Your task to perform on an android device: search for starred emails in the gmail app Image 0: 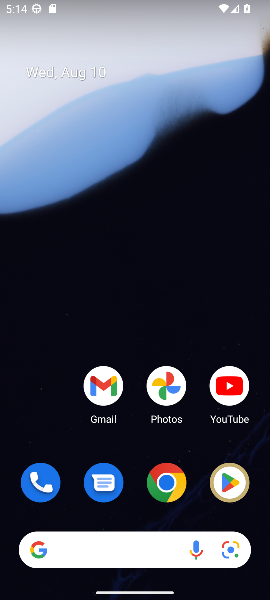
Step 0: click (98, 391)
Your task to perform on an android device: search for starred emails in the gmail app Image 1: 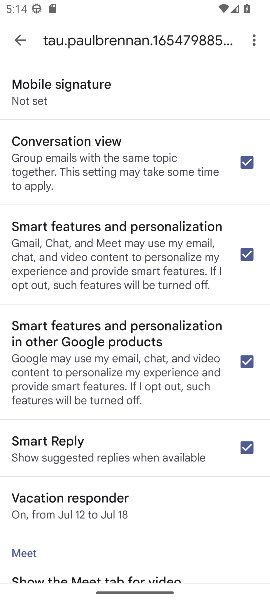
Step 1: click (21, 38)
Your task to perform on an android device: search for starred emails in the gmail app Image 2: 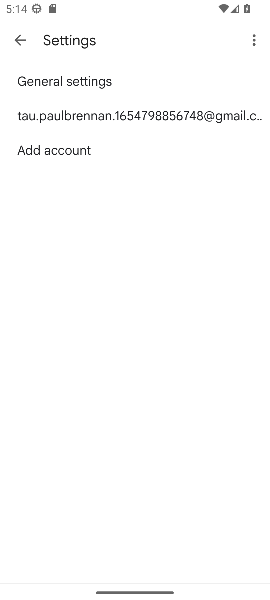
Step 2: click (21, 39)
Your task to perform on an android device: search for starred emails in the gmail app Image 3: 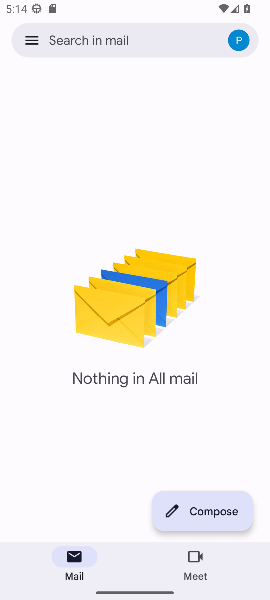
Step 3: click (30, 40)
Your task to perform on an android device: search for starred emails in the gmail app Image 4: 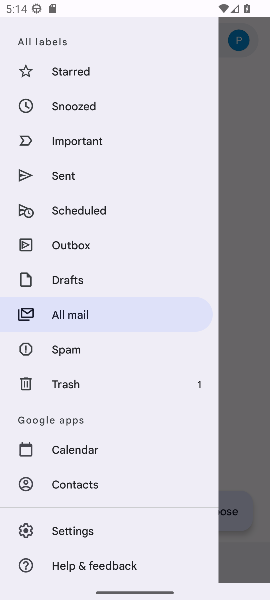
Step 4: click (63, 69)
Your task to perform on an android device: search for starred emails in the gmail app Image 5: 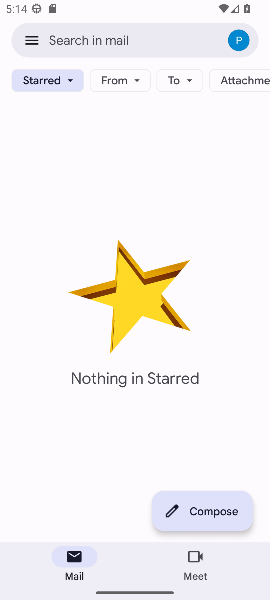
Step 5: task complete